Your task to perform on an android device: Search for a new lawnmower on Lowes.com Image 0: 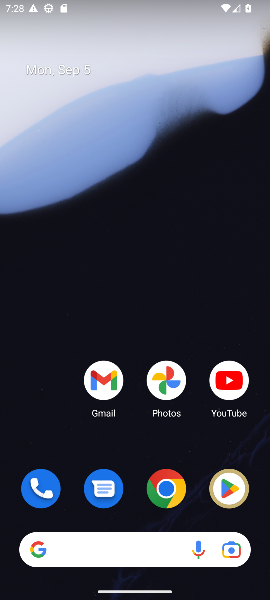
Step 0: click (170, 497)
Your task to perform on an android device: Search for a new lawnmower on Lowes.com Image 1: 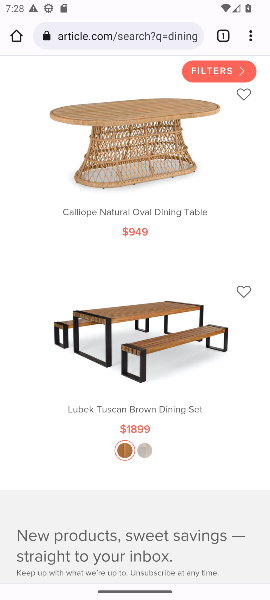
Step 1: click (140, 41)
Your task to perform on an android device: Search for a new lawnmower on Lowes.com Image 2: 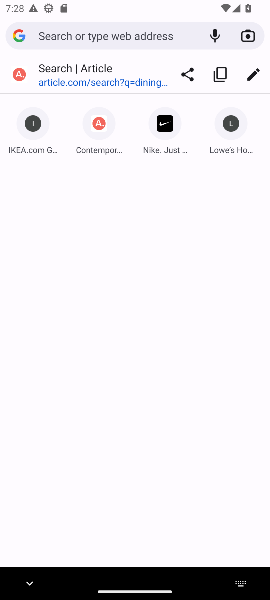
Step 2: type "lowes.com"
Your task to perform on an android device: Search for a new lawnmower on Lowes.com Image 3: 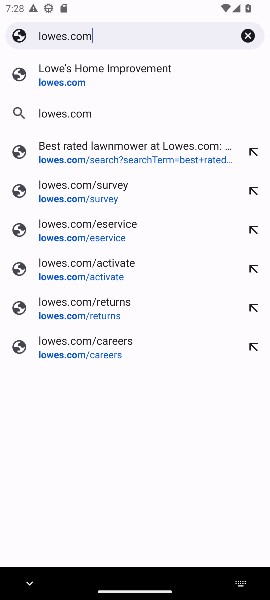
Step 3: press enter
Your task to perform on an android device: Search for a new lawnmower on Lowes.com Image 4: 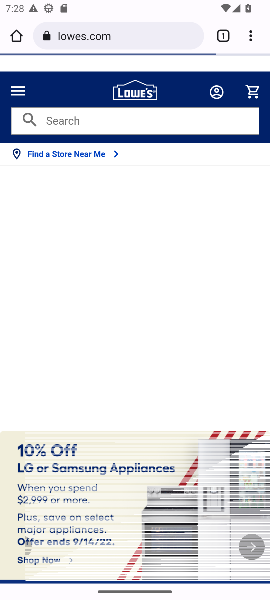
Step 4: click (126, 122)
Your task to perform on an android device: Search for a new lawnmower on Lowes.com Image 5: 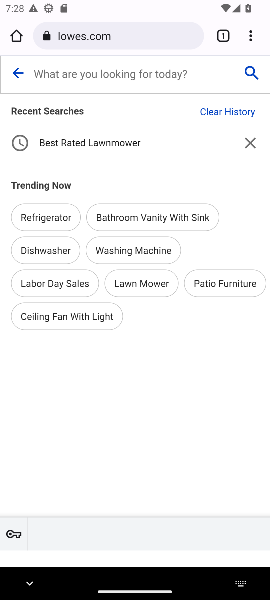
Step 5: type "new lawnmower"
Your task to perform on an android device: Search for a new lawnmower on Lowes.com Image 6: 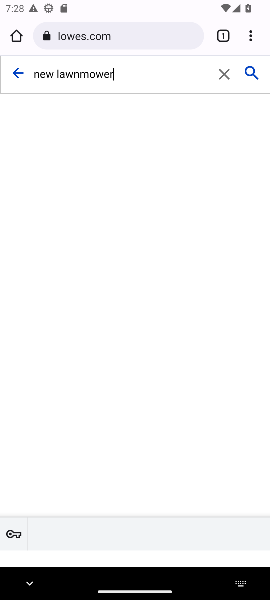
Step 6: press enter
Your task to perform on an android device: Search for a new lawnmower on Lowes.com Image 7: 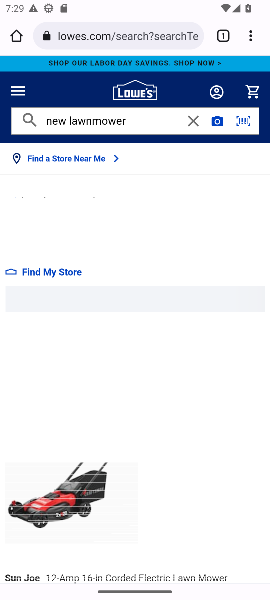
Step 7: drag from (161, 424) to (177, 350)
Your task to perform on an android device: Search for a new lawnmower on Lowes.com Image 8: 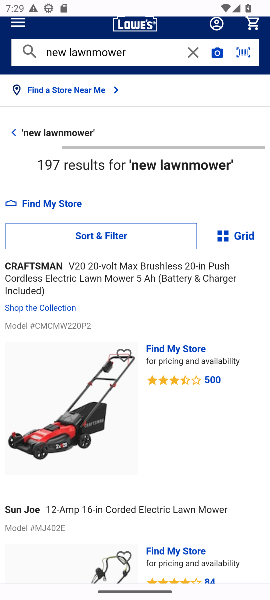
Step 8: click (139, 230)
Your task to perform on an android device: Search for a new lawnmower on Lowes.com Image 9: 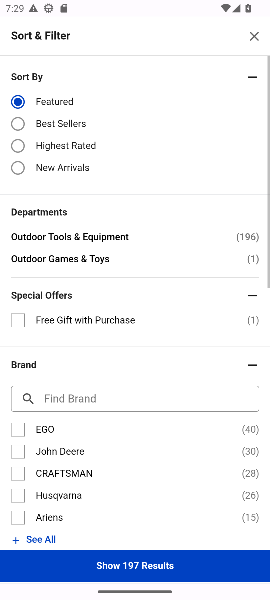
Step 9: click (57, 170)
Your task to perform on an android device: Search for a new lawnmower on Lowes.com Image 10: 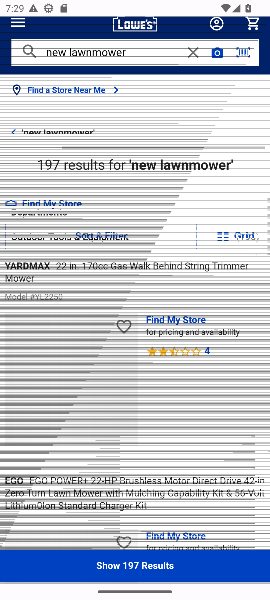
Step 10: click (149, 568)
Your task to perform on an android device: Search for a new lawnmower on Lowes.com Image 11: 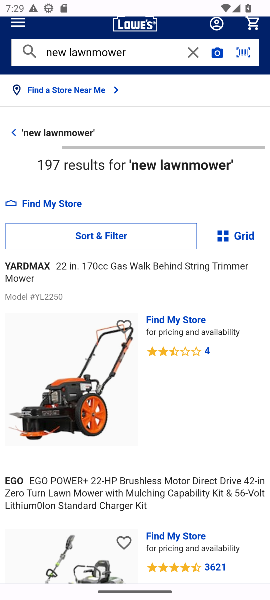
Step 11: task complete